Your task to perform on an android device: turn off priority inbox in the gmail app Image 0: 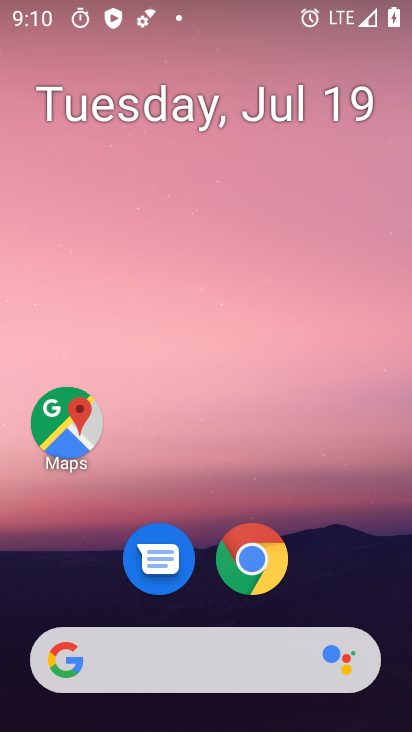
Step 0: drag from (392, 611) to (377, 187)
Your task to perform on an android device: turn off priority inbox in the gmail app Image 1: 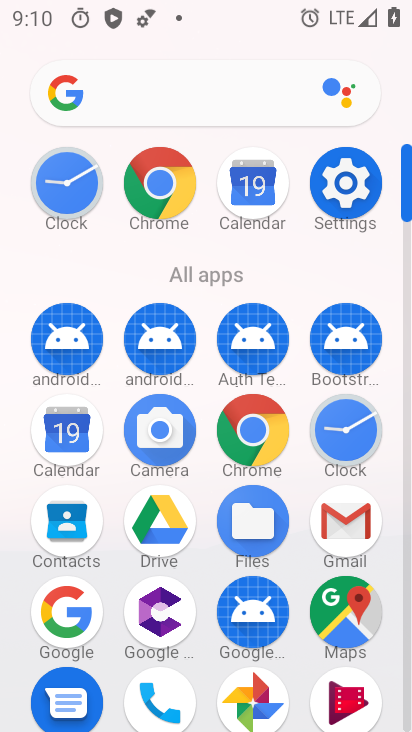
Step 1: click (360, 525)
Your task to perform on an android device: turn off priority inbox in the gmail app Image 2: 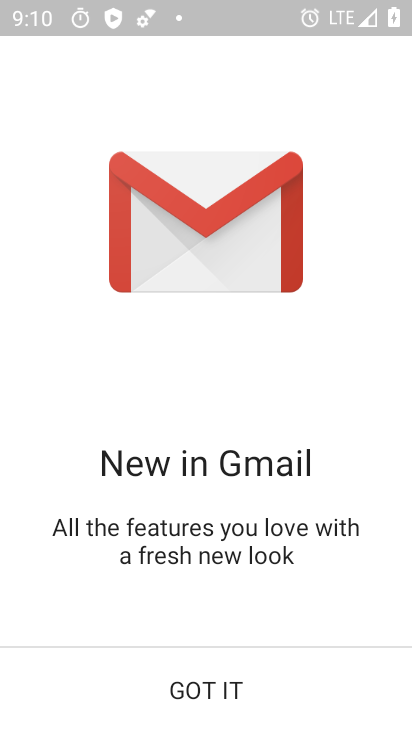
Step 2: click (248, 692)
Your task to perform on an android device: turn off priority inbox in the gmail app Image 3: 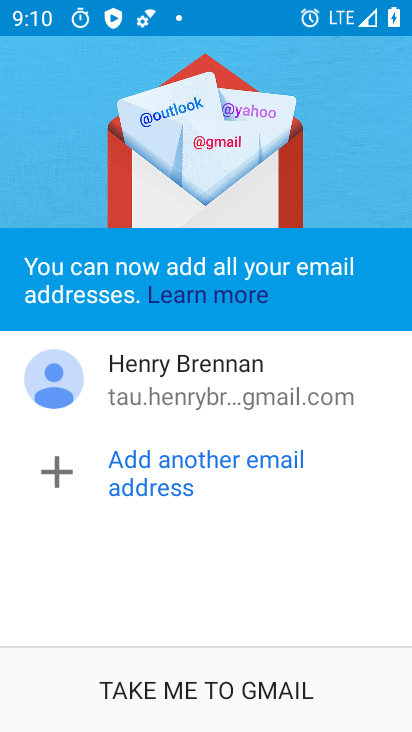
Step 3: click (248, 692)
Your task to perform on an android device: turn off priority inbox in the gmail app Image 4: 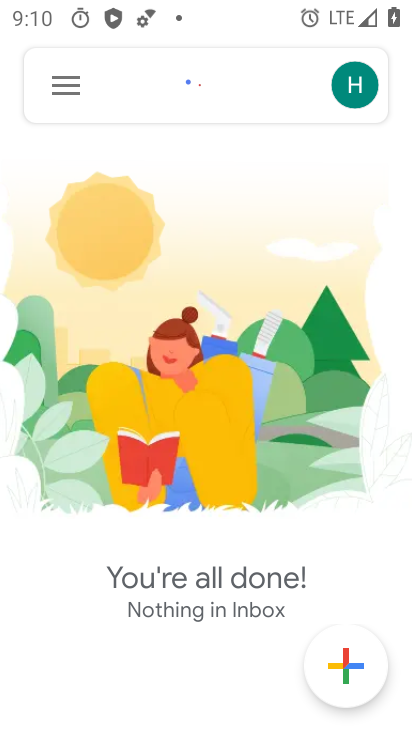
Step 4: click (65, 82)
Your task to perform on an android device: turn off priority inbox in the gmail app Image 5: 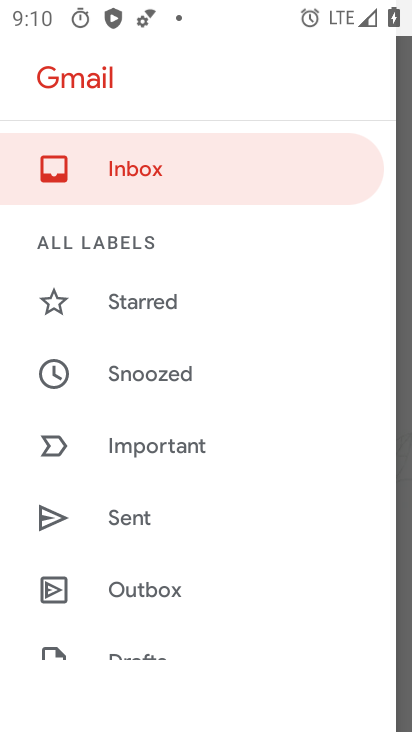
Step 5: drag from (230, 628) to (205, 201)
Your task to perform on an android device: turn off priority inbox in the gmail app Image 6: 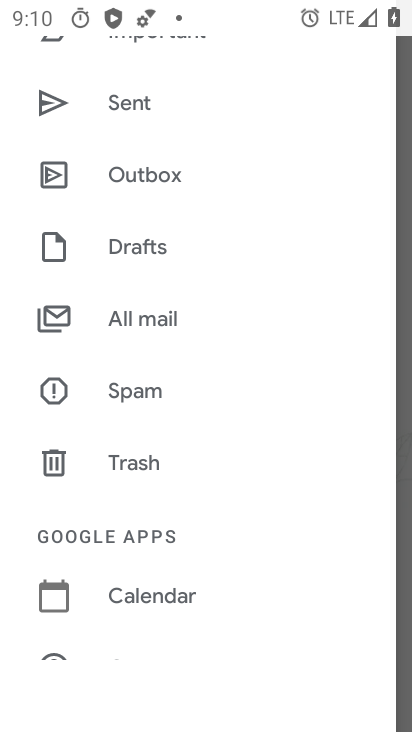
Step 6: drag from (180, 633) to (181, 265)
Your task to perform on an android device: turn off priority inbox in the gmail app Image 7: 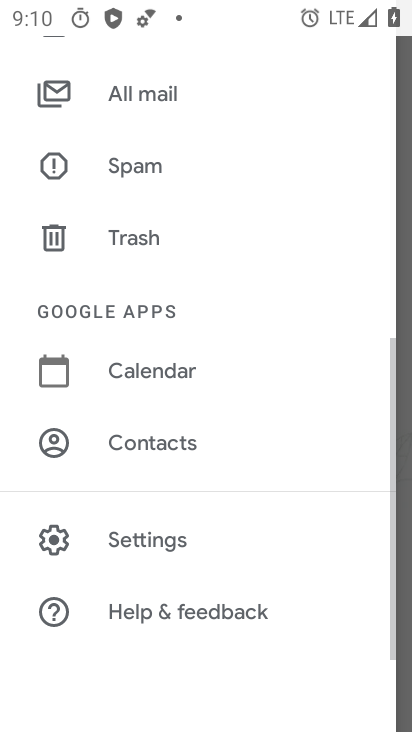
Step 7: click (162, 549)
Your task to perform on an android device: turn off priority inbox in the gmail app Image 8: 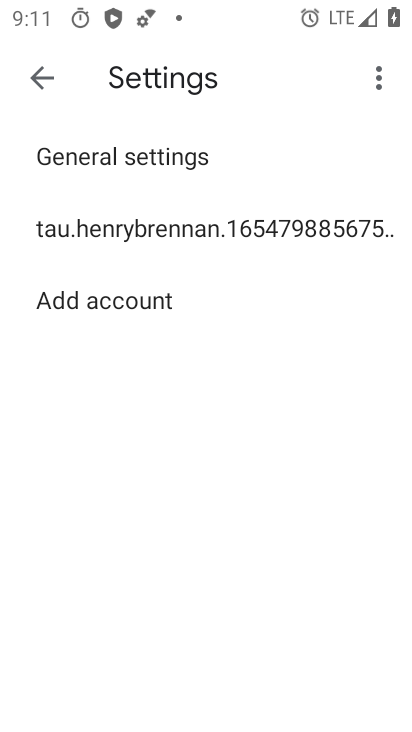
Step 8: click (332, 236)
Your task to perform on an android device: turn off priority inbox in the gmail app Image 9: 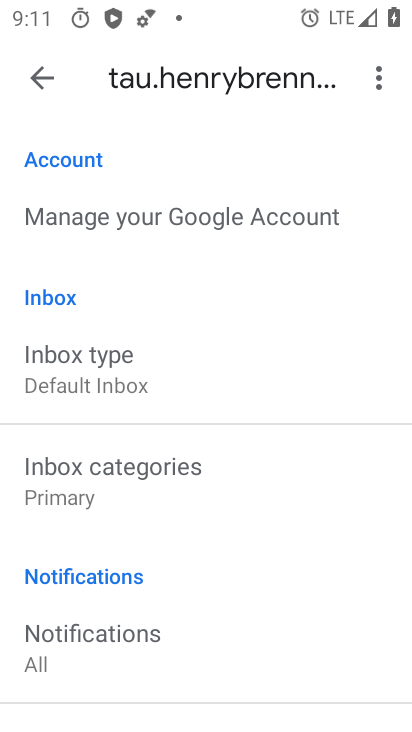
Step 9: click (306, 386)
Your task to perform on an android device: turn off priority inbox in the gmail app Image 10: 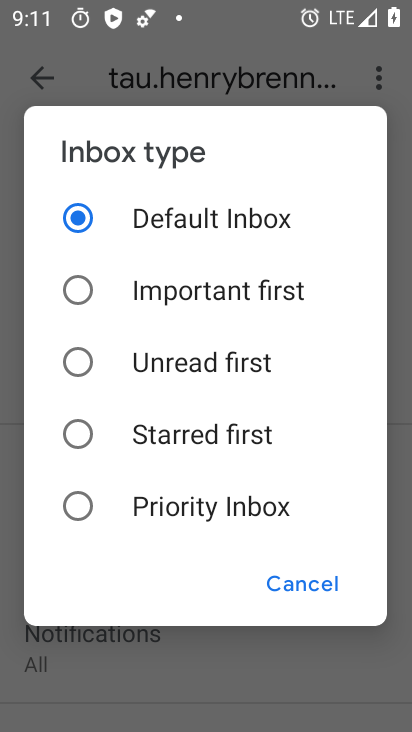
Step 10: task complete